Your task to perform on an android device: Open wifi settings Image 0: 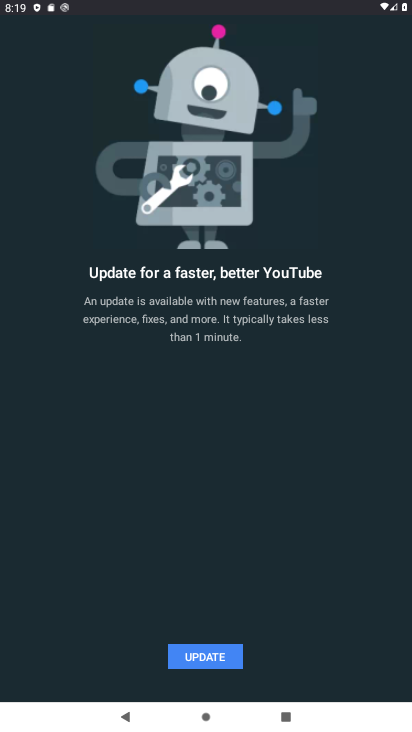
Step 0: press home button
Your task to perform on an android device: Open wifi settings Image 1: 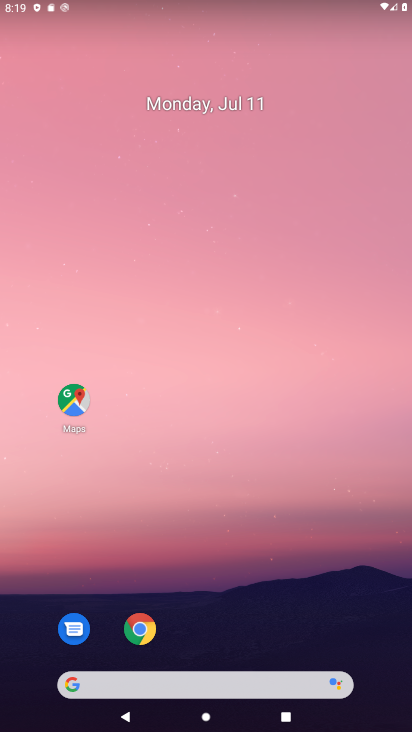
Step 1: drag from (217, 606) to (289, 74)
Your task to perform on an android device: Open wifi settings Image 2: 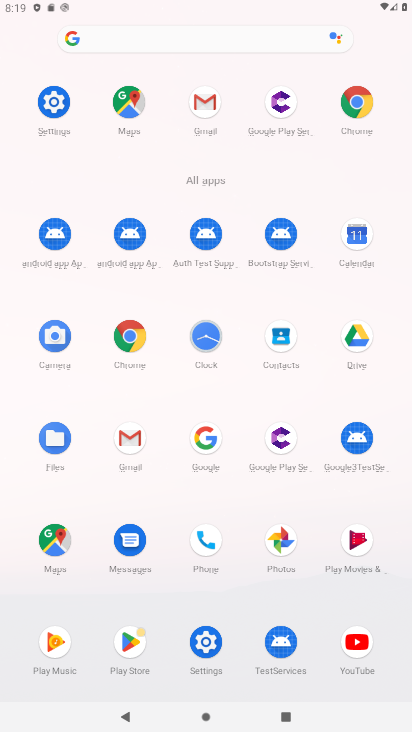
Step 2: click (48, 104)
Your task to perform on an android device: Open wifi settings Image 3: 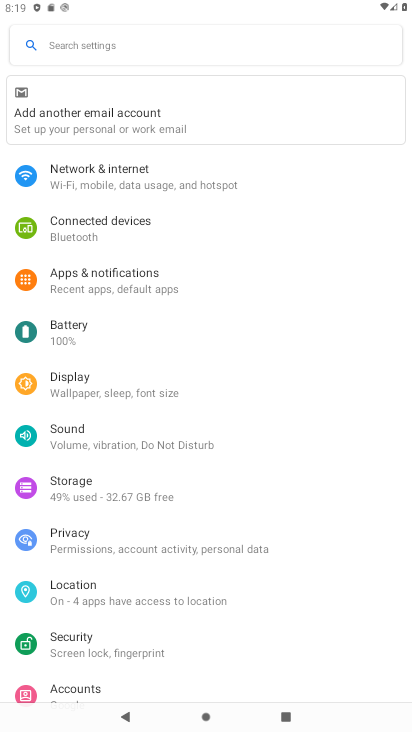
Step 3: click (108, 171)
Your task to perform on an android device: Open wifi settings Image 4: 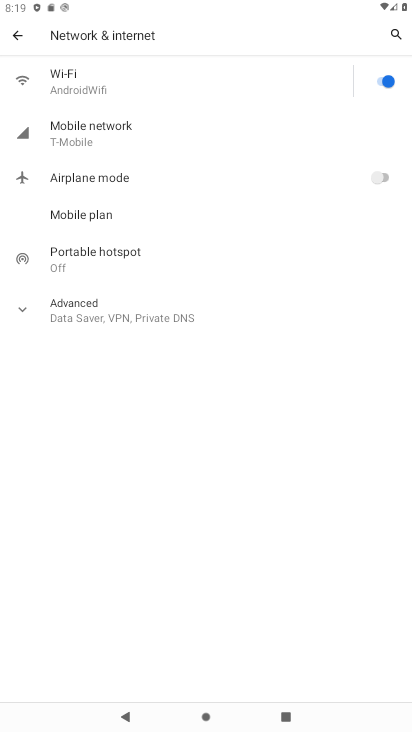
Step 4: click (223, 82)
Your task to perform on an android device: Open wifi settings Image 5: 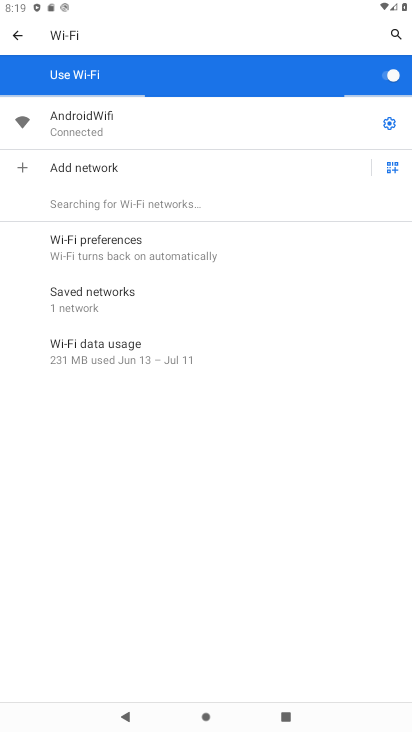
Step 5: task complete